Your task to perform on an android device: open a new tab in the chrome app Image 0: 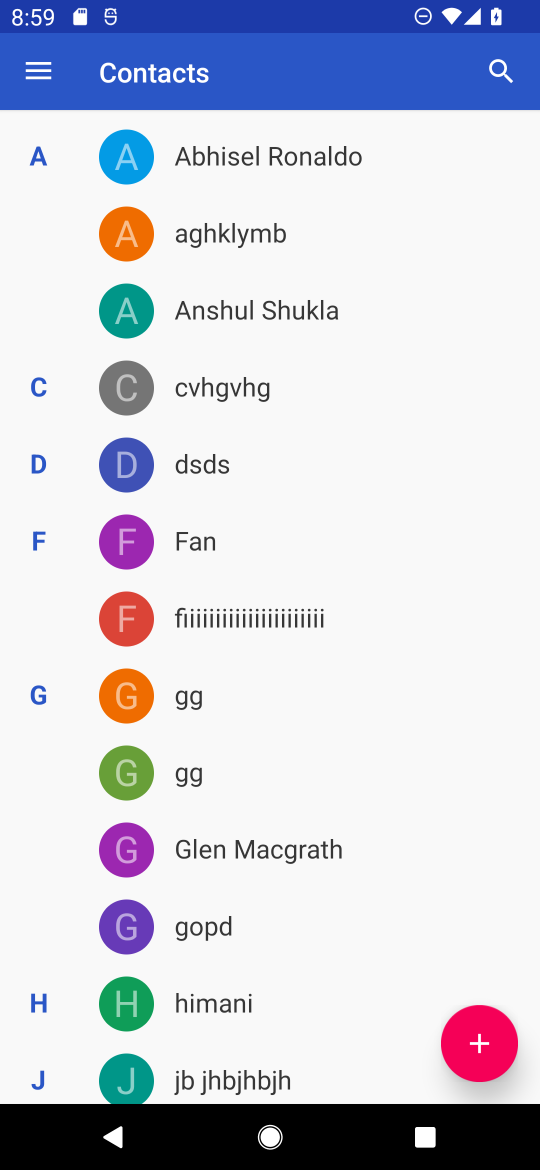
Step 0: press home button
Your task to perform on an android device: open a new tab in the chrome app Image 1: 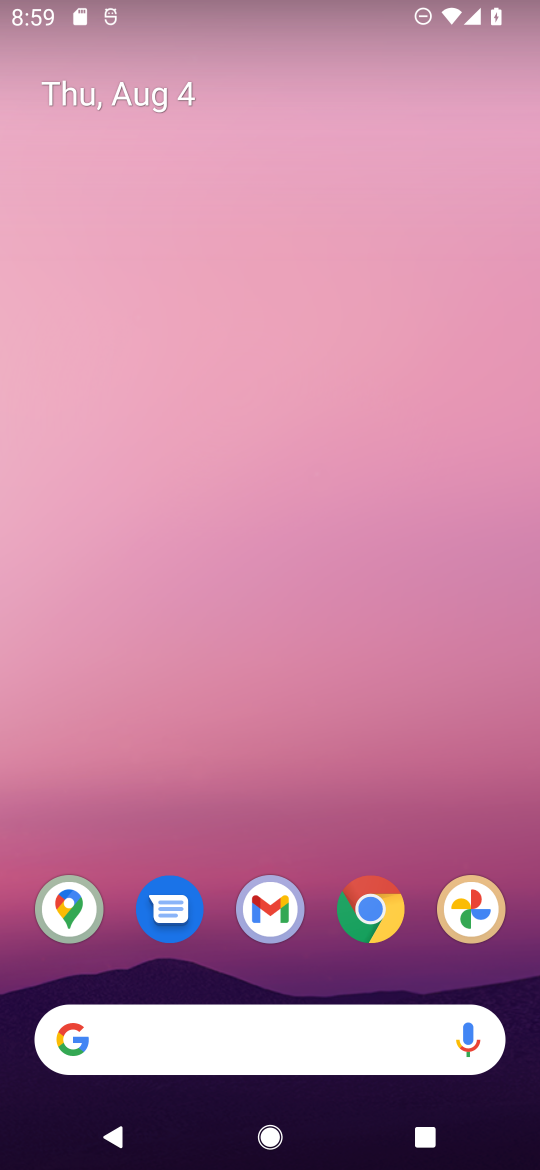
Step 1: drag from (322, 807) to (379, 209)
Your task to perform on an android device: open a new tab in the chrome app Image 2: 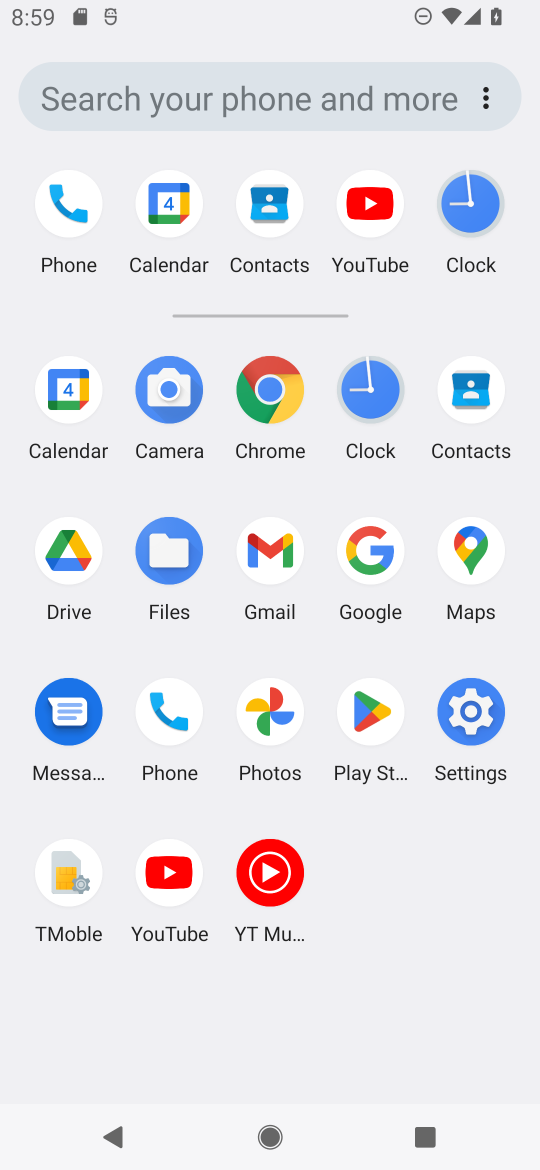
Step 2: click (272, 387)
Your task to perform on an android device: open a new tab in the chrome app Image 3: 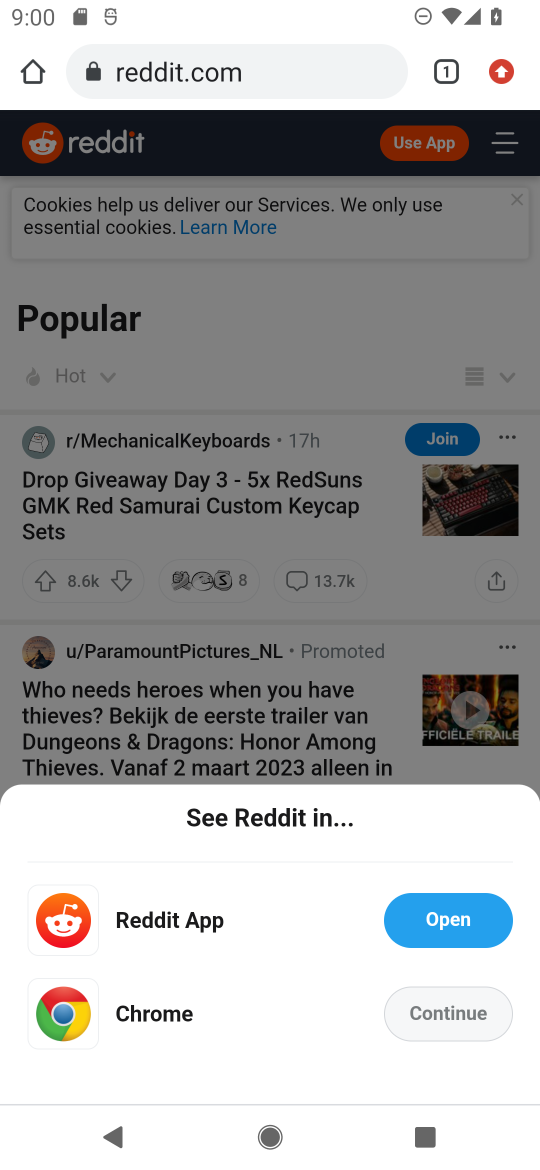
Step 3: click (504, 69)
Your task to perform on an android device: open a new tab in the chrome app Image 4: 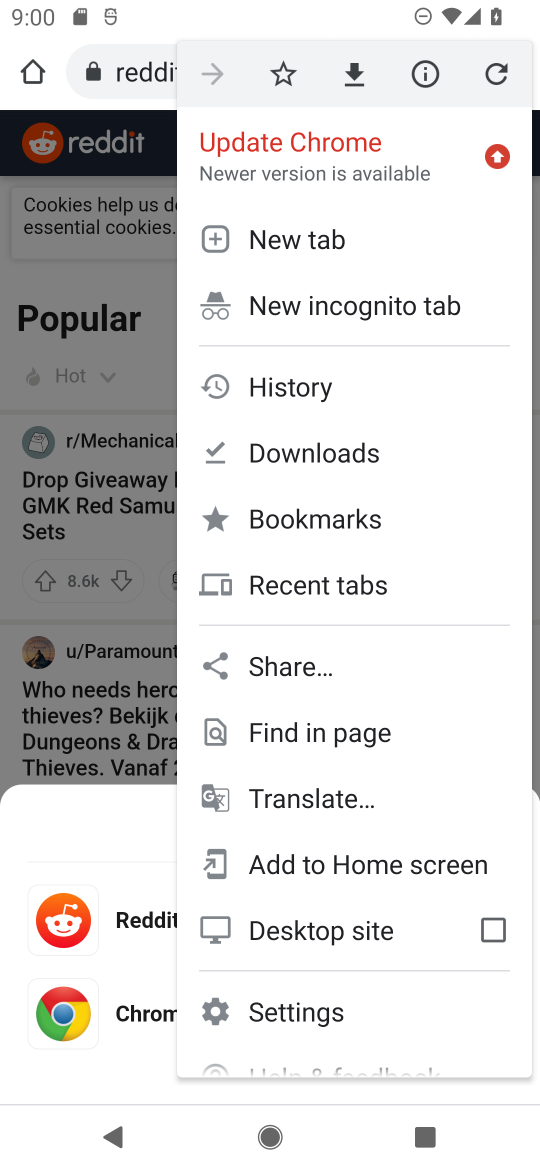
Step 4: click (333, 249)
Your task to perform on an android device: open a new tab in the chrome app Image 5: 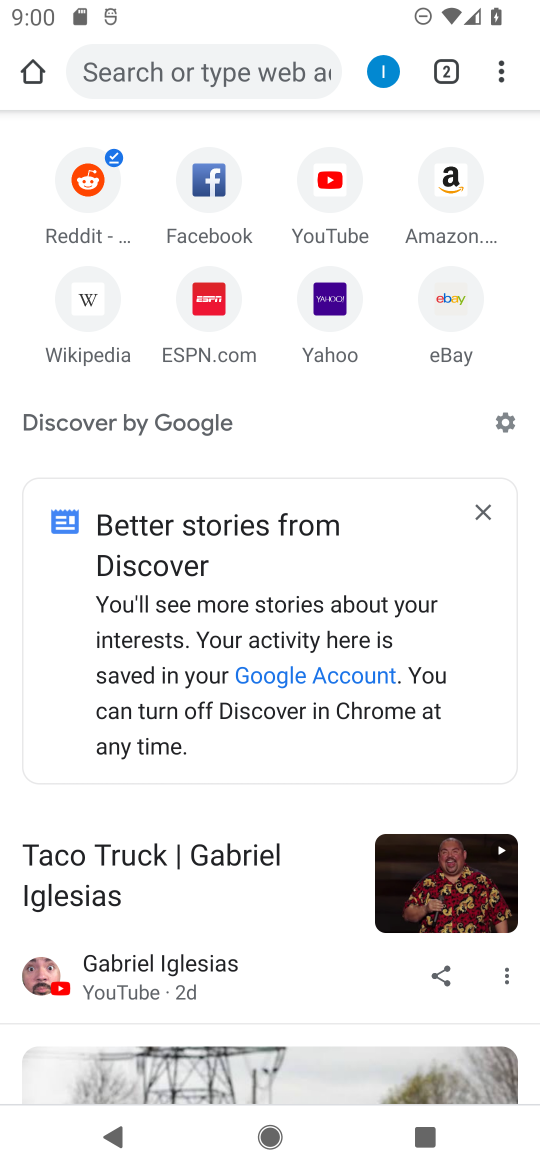
Step 5: task complete